Your task to perform on an android device: open app "Paramount+ | Peak Streaming" (install if not already installed), go to login, and select forgot password Image 0: 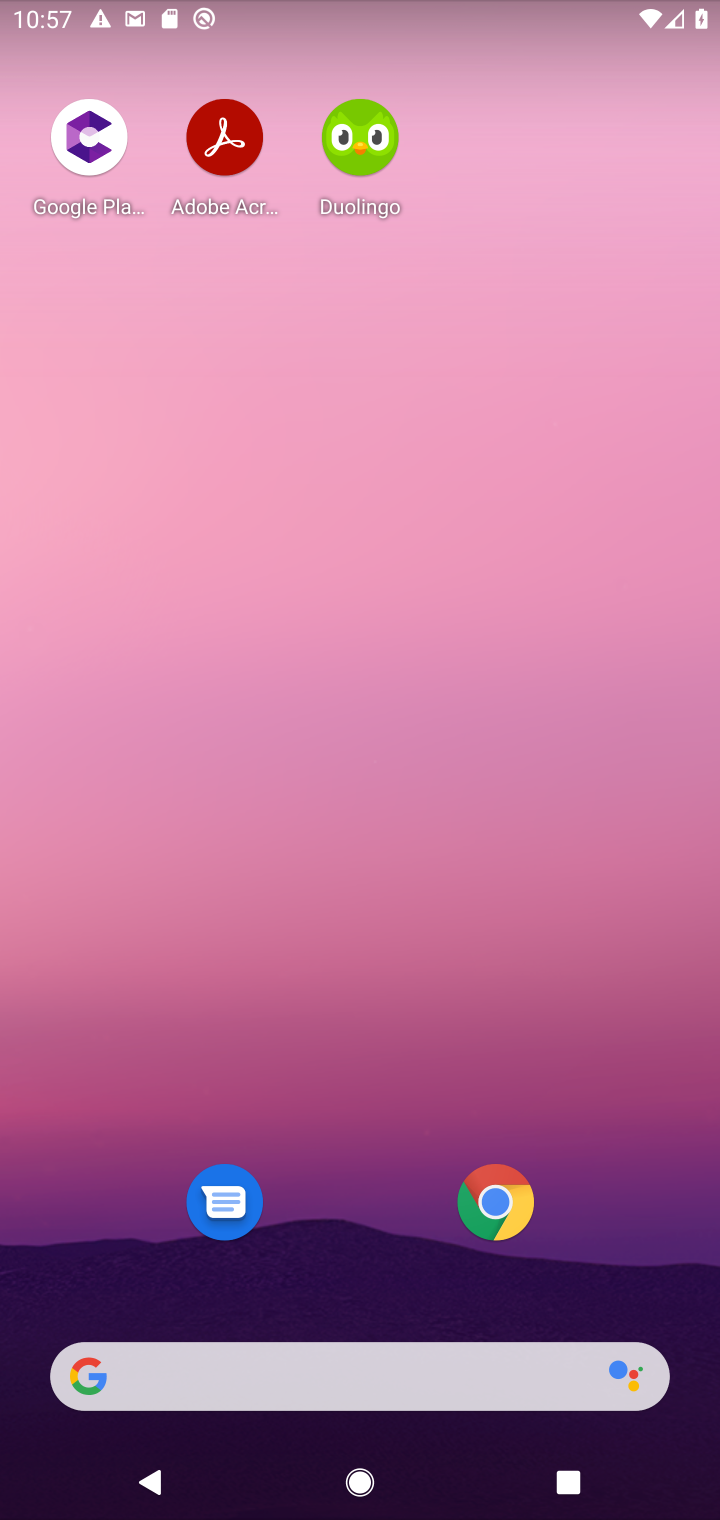
Step 0: drag from (390, 1184) to (377, 111)
Your task to perform on an android device: open app "Paramount+ | Peak Streaming" (install if not already installed), go to login, and select forgot password Image 1: 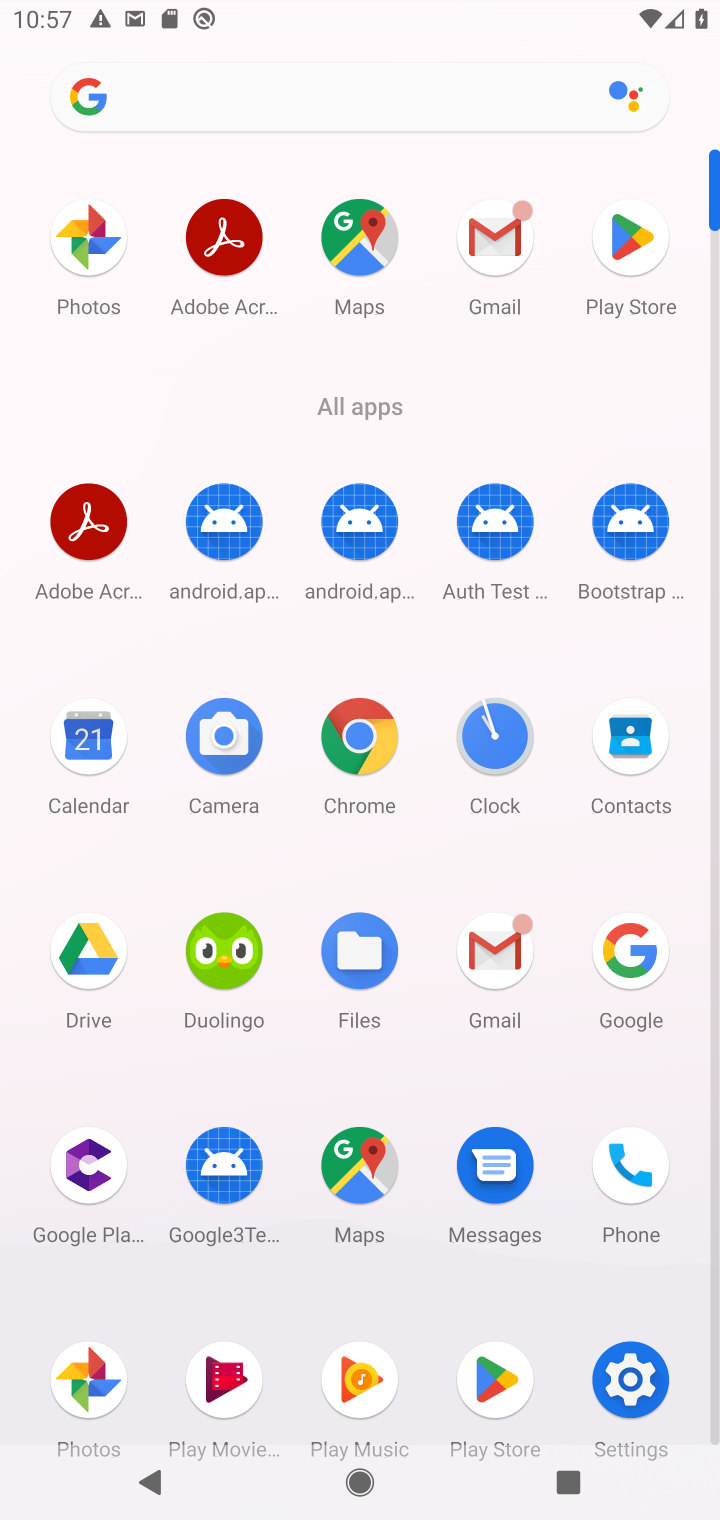
Step 1: click (490, 1375)
Your task to perform on an android device: open app "Paramount+ | Peak Streaming" (install if not already installed), go to login, and select forgot password Image 2: 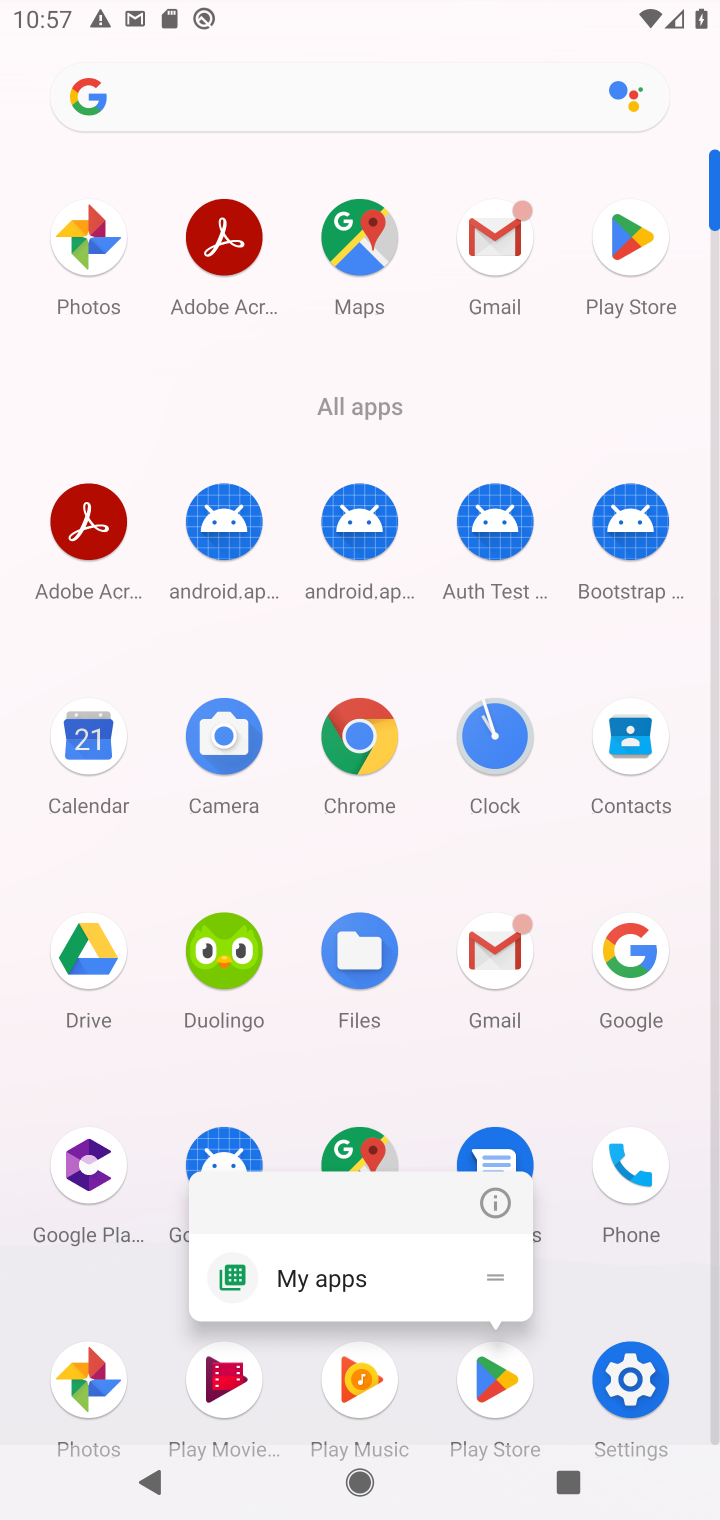
Step 2: click (491, 1377)
Your task to perform on an android device: open app "Paramount+ | Peak Streaming" (install if not already installed), go to login, and select forgot password Image 3: 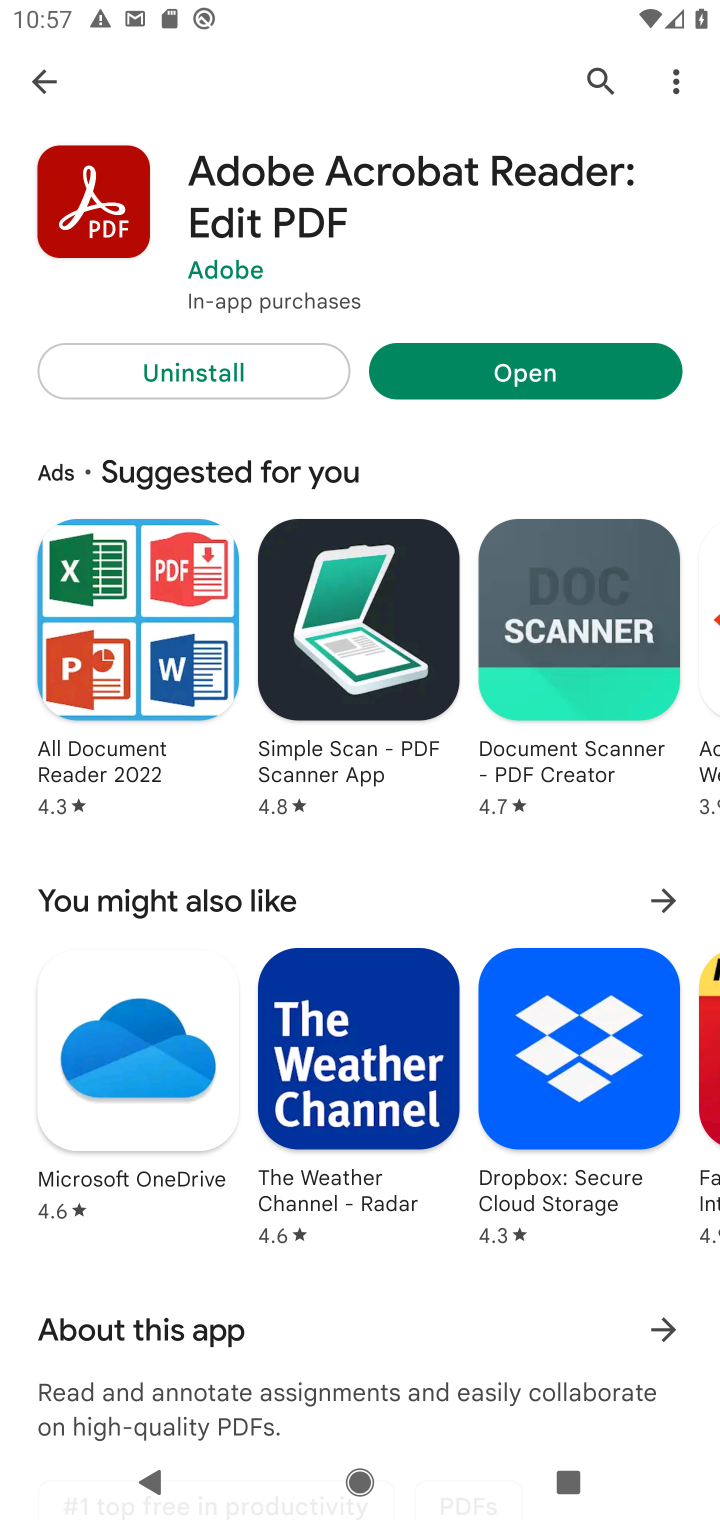
Step 3: click (609, 64)
Your task to perform on an android device: open app "Paramount+ | Peak Streaming" (install if not already installed), go to login, and select forgot password Image 4: 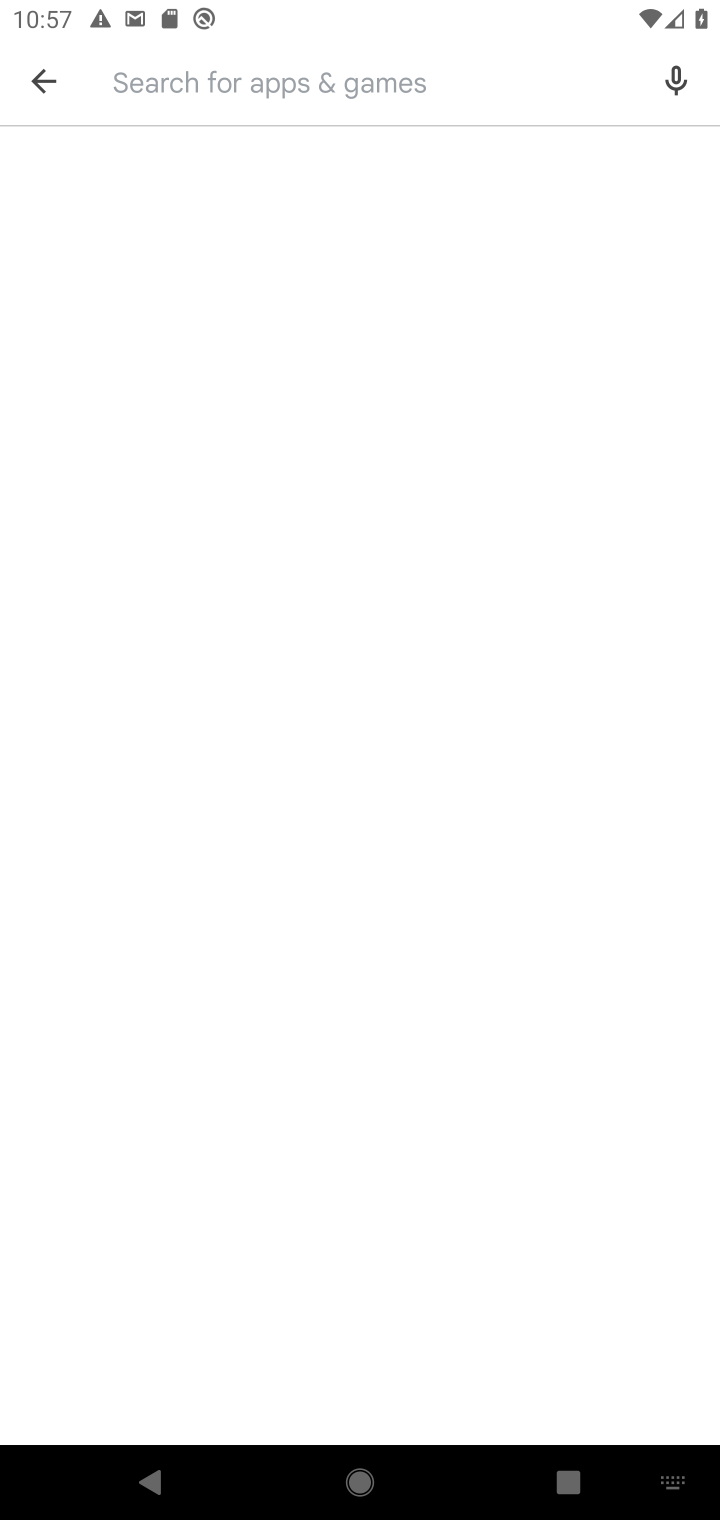
Step 4: type "Paramount+ | Peak Streaming"
Your task to perform on an android device: open app "Paramount+ | Peak Streaming" (install if not already installed), go to login, and select forgot password Image 5: 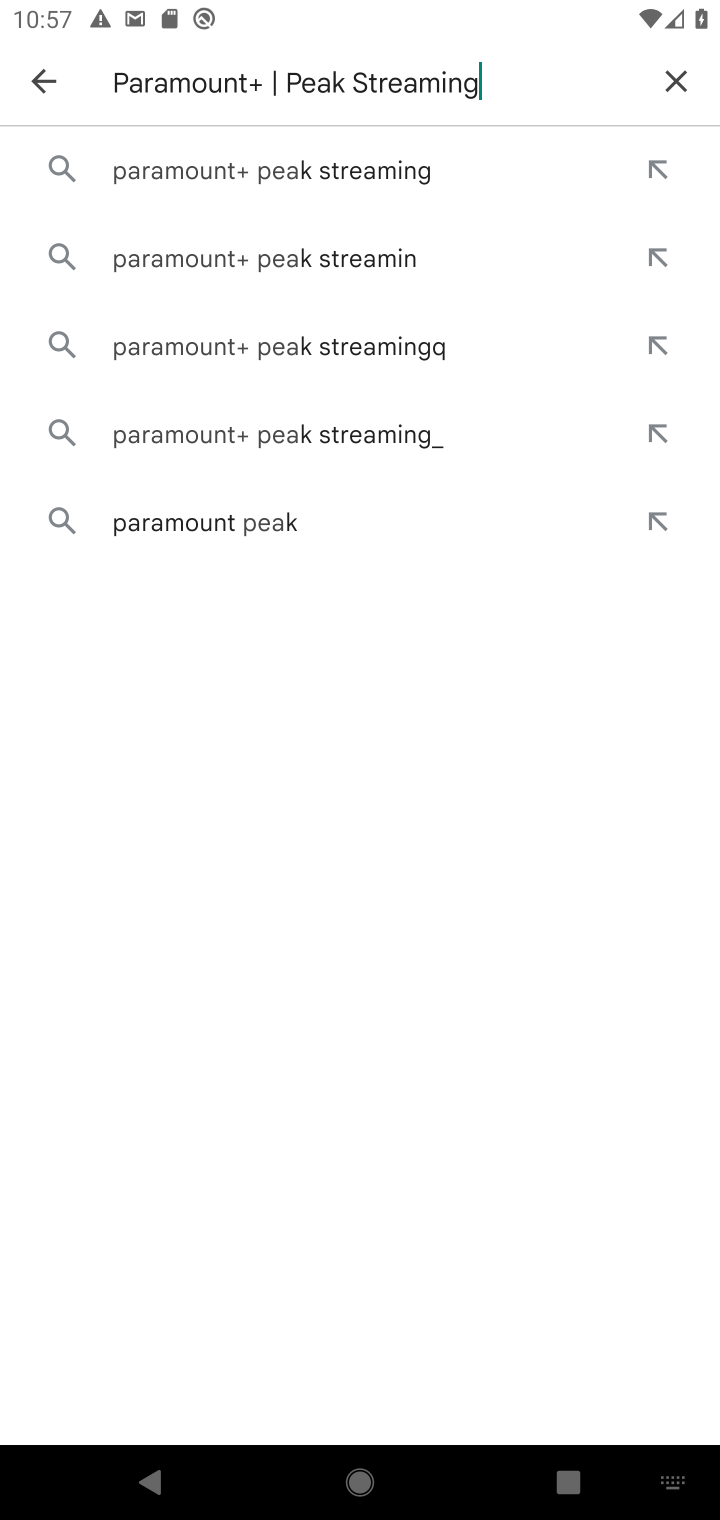
Step 5: type ""
Your task to perform on an android device: open app "Paramount+ | Peak Streaming" (install if not already installed), go to login, and select forgot password Image 6: 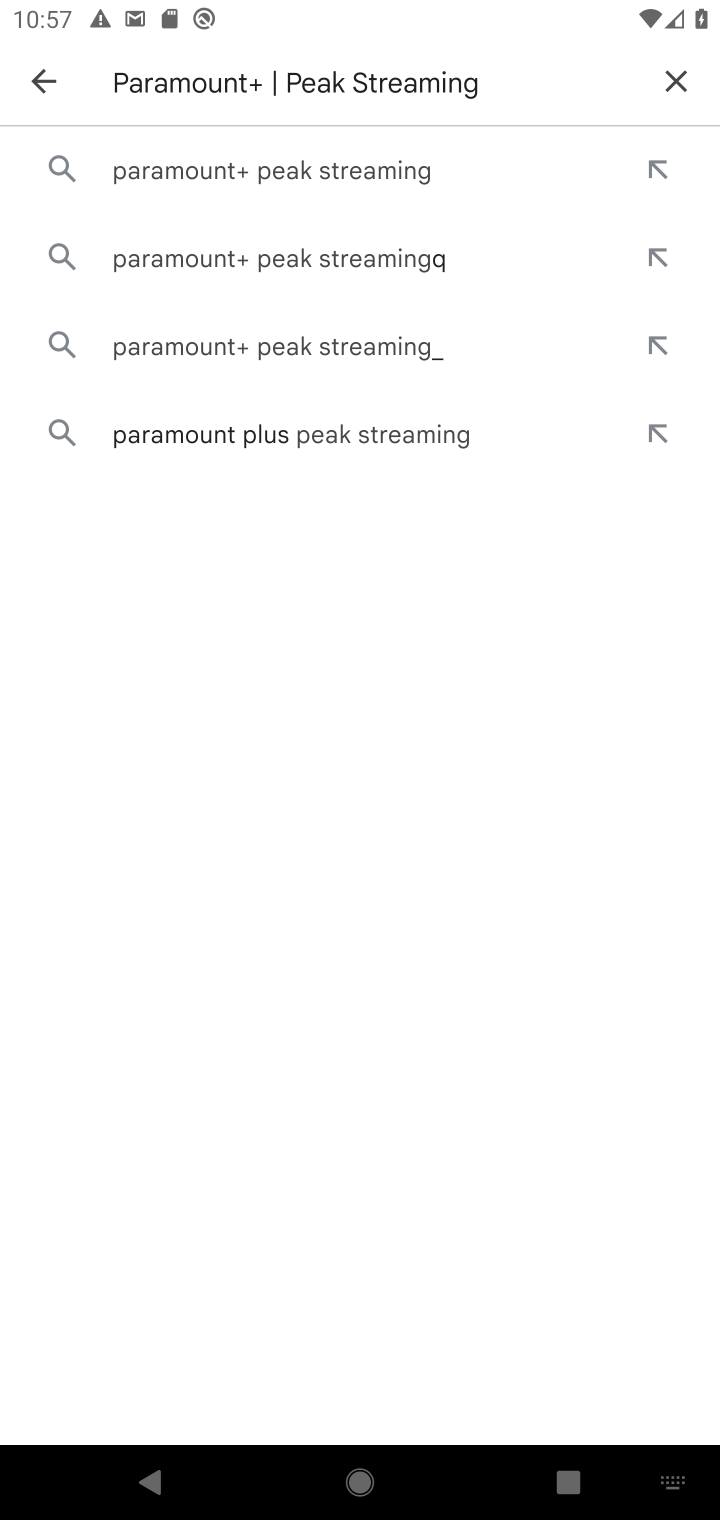
Step 6: click (383, 175)
Your task to perform on an android device: open app "Paramount+ | Peak Streaming" (install if not already installed), go to login, and select forgot password Image 7: 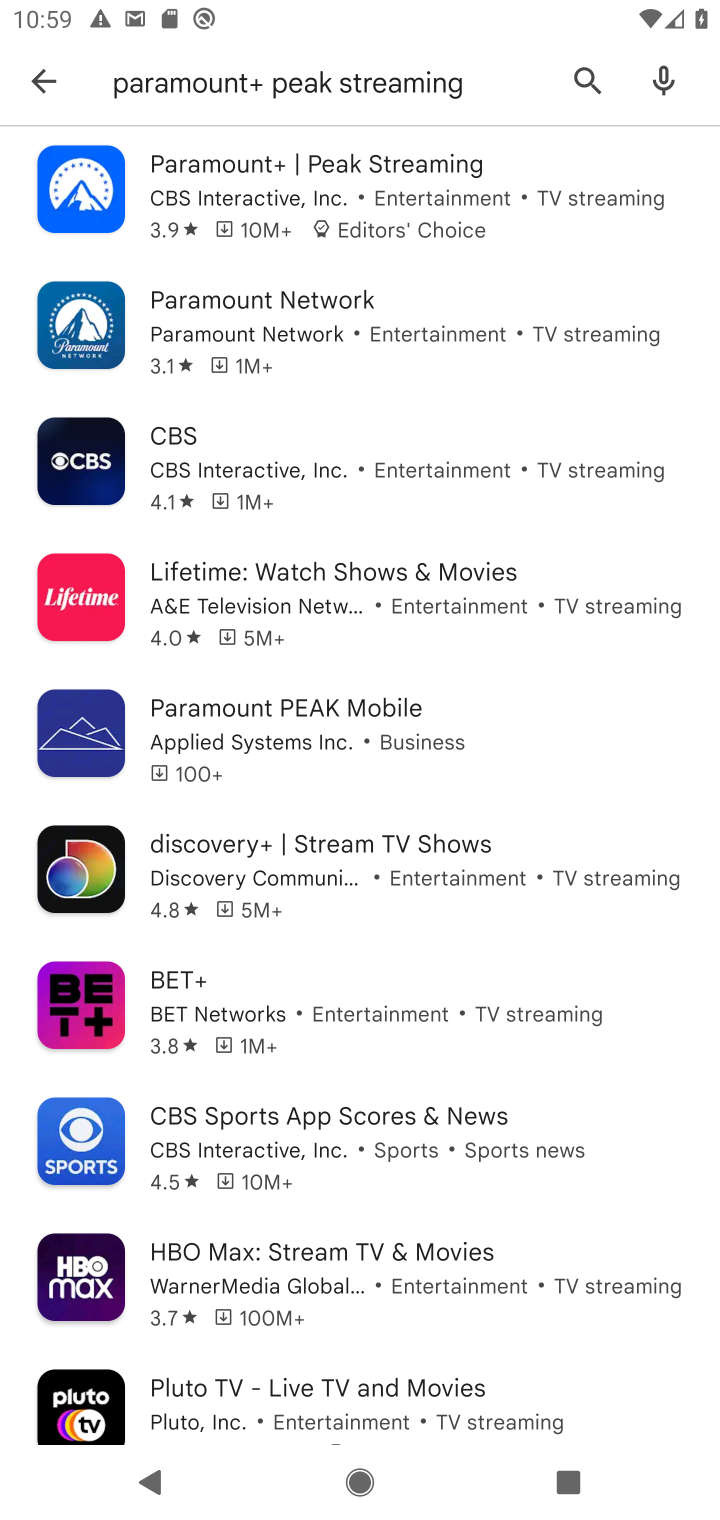
Step 7: click (356, 164)
Your task to perform on an android device: open app "Paramount+ | Peak Streaming" (install if not already installed), go to login, and select forgot password Image 8: 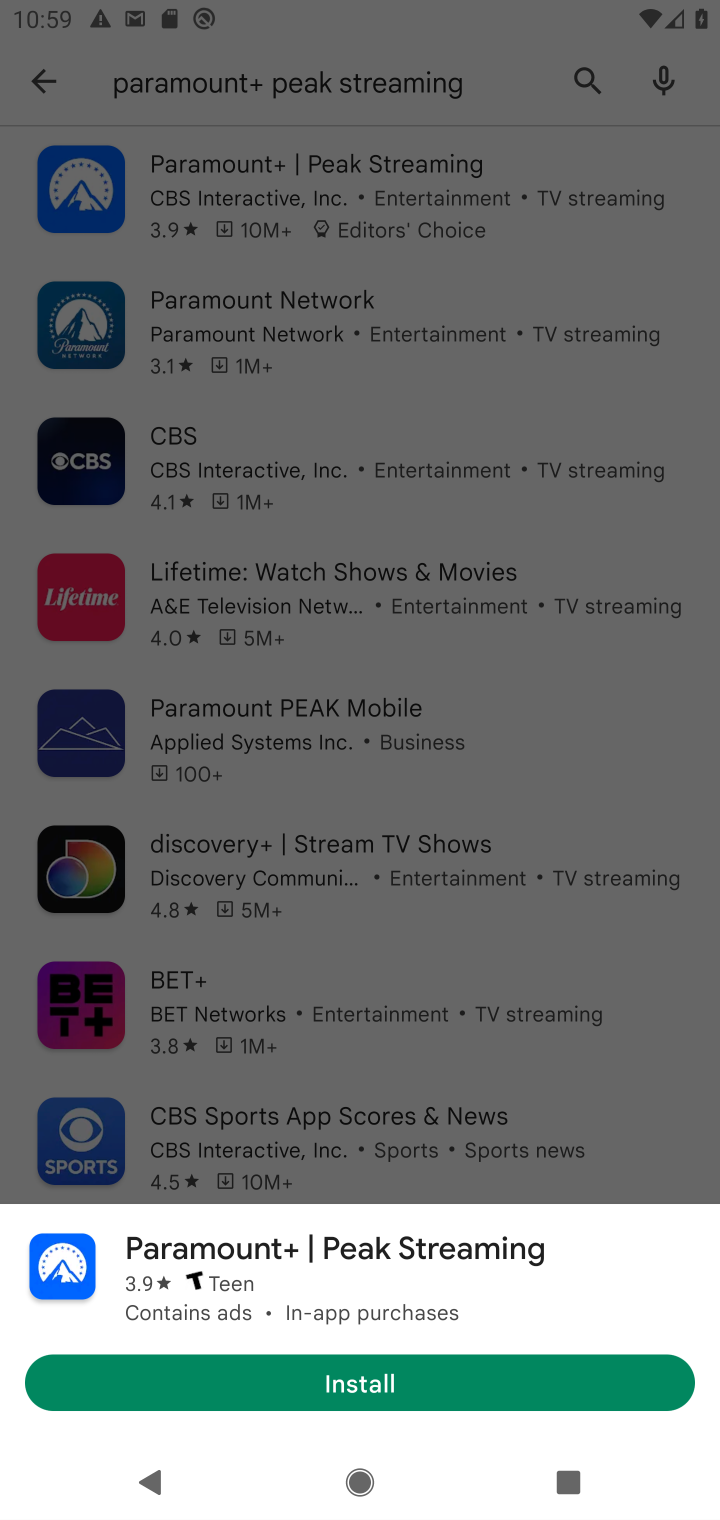
Step 8: click (358, 1383)
Your task to perform on an android device: open app "Paramount+ | Peak Streaming" (install if not already installed), go to login, and select forgot password Image 9: 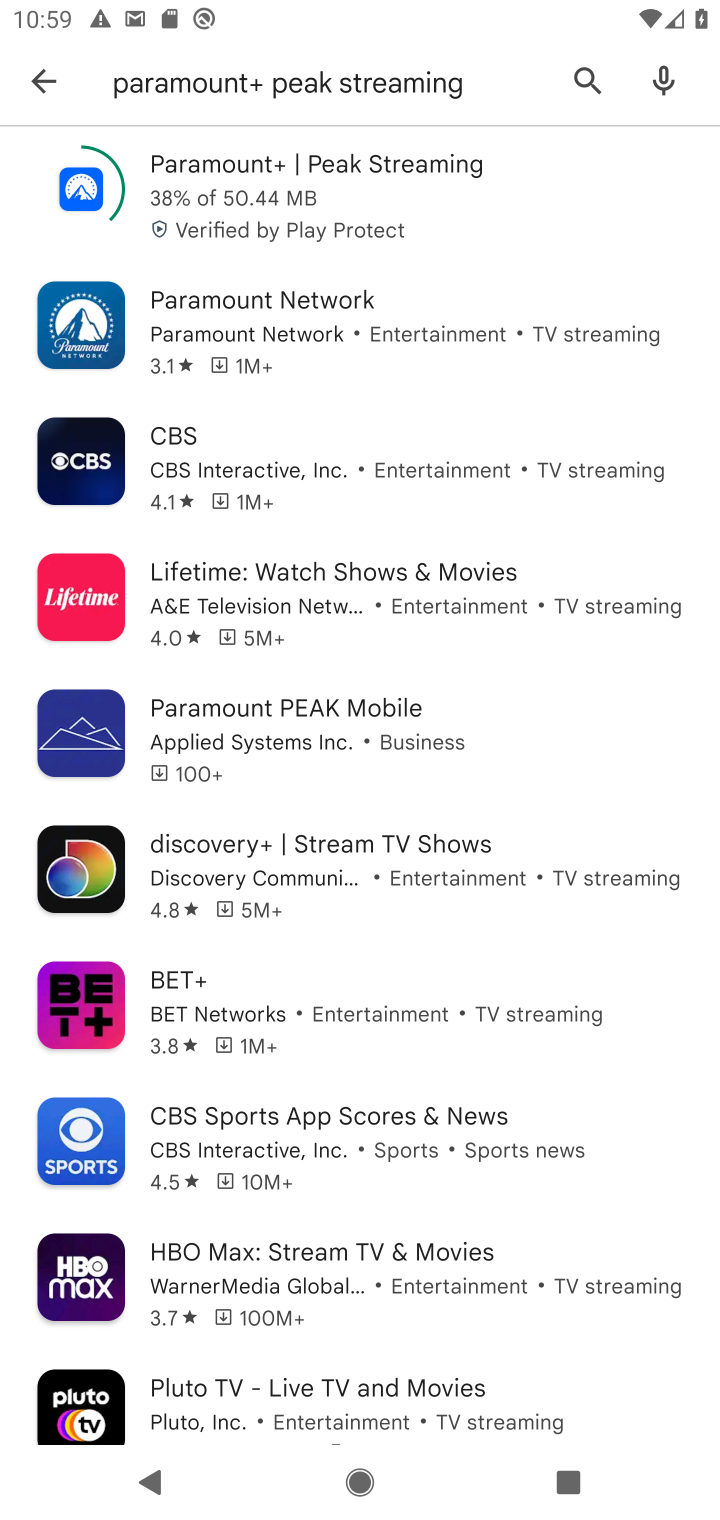
Step 9: click (207, 160)
Your task to perform on an android device: open app "Paramount+ | Peak Streaming" (install if not already installed), go to login, and select forgot password Image 10: 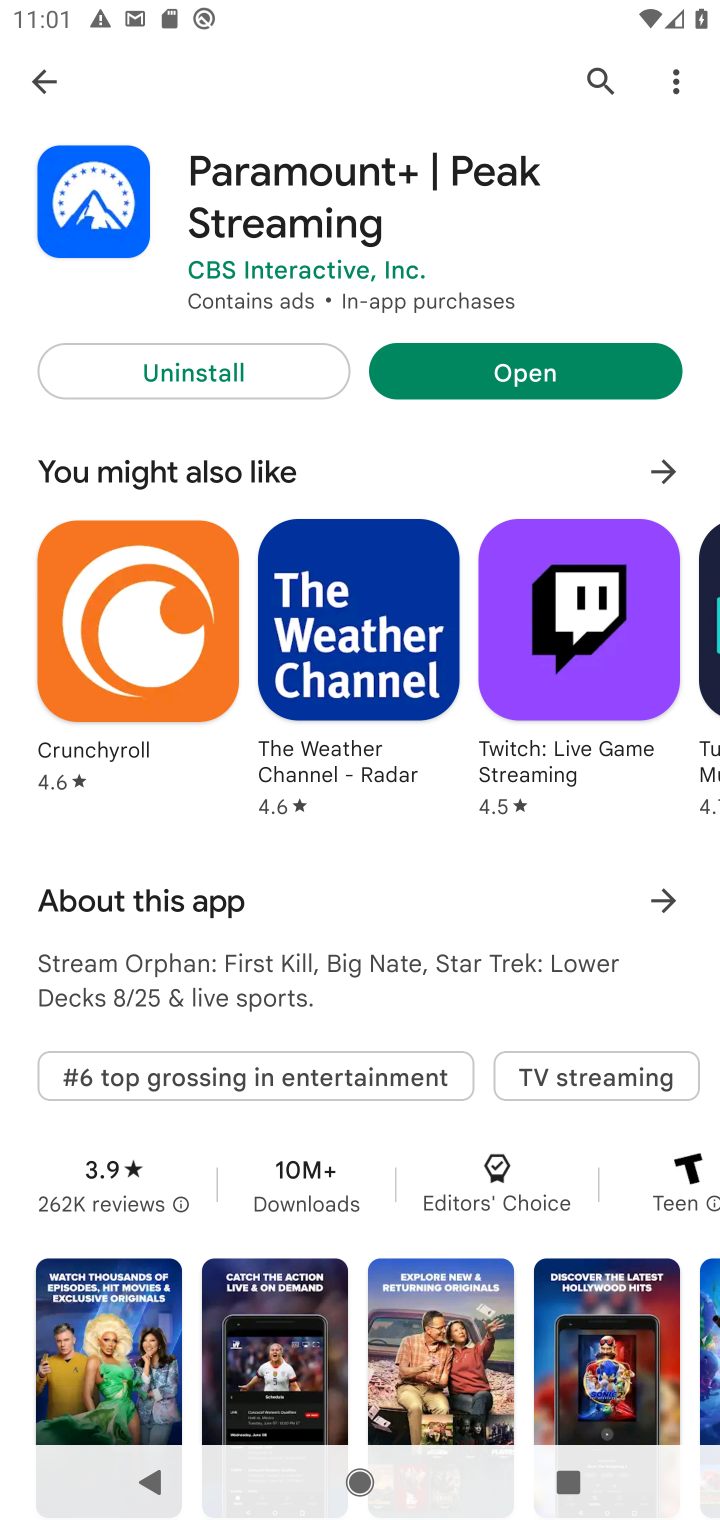
Step 10: click (573, 374)
Your task to perform on an android device: open app "Paramount+ | Peak Streaming" (install if not already installed), go to login, and select forgot password Image 11: 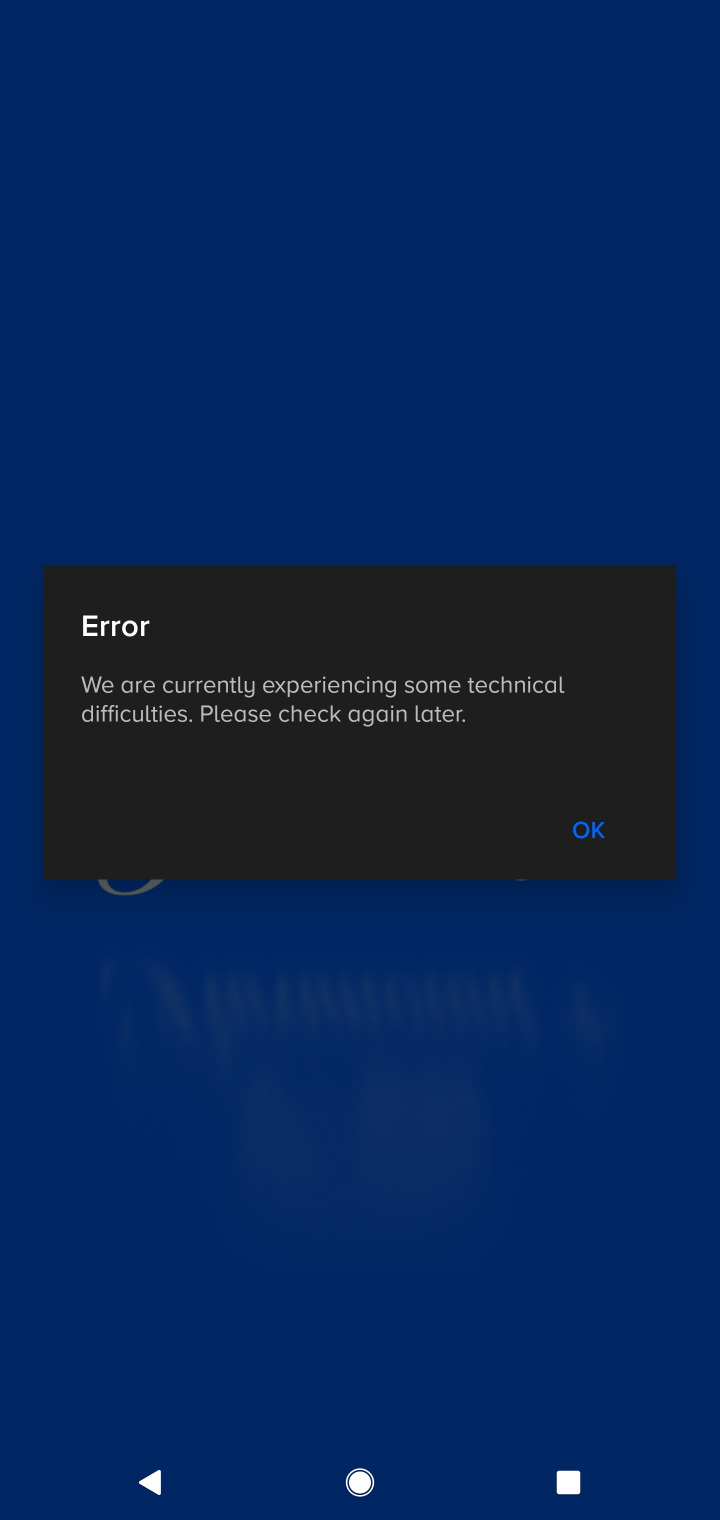
Step 11: click (590, 828)
Your task to perform on an android device: open app "Paramount+ | Peak Streaming" (install if not already installed), go to login, and select forgot password Image 12: 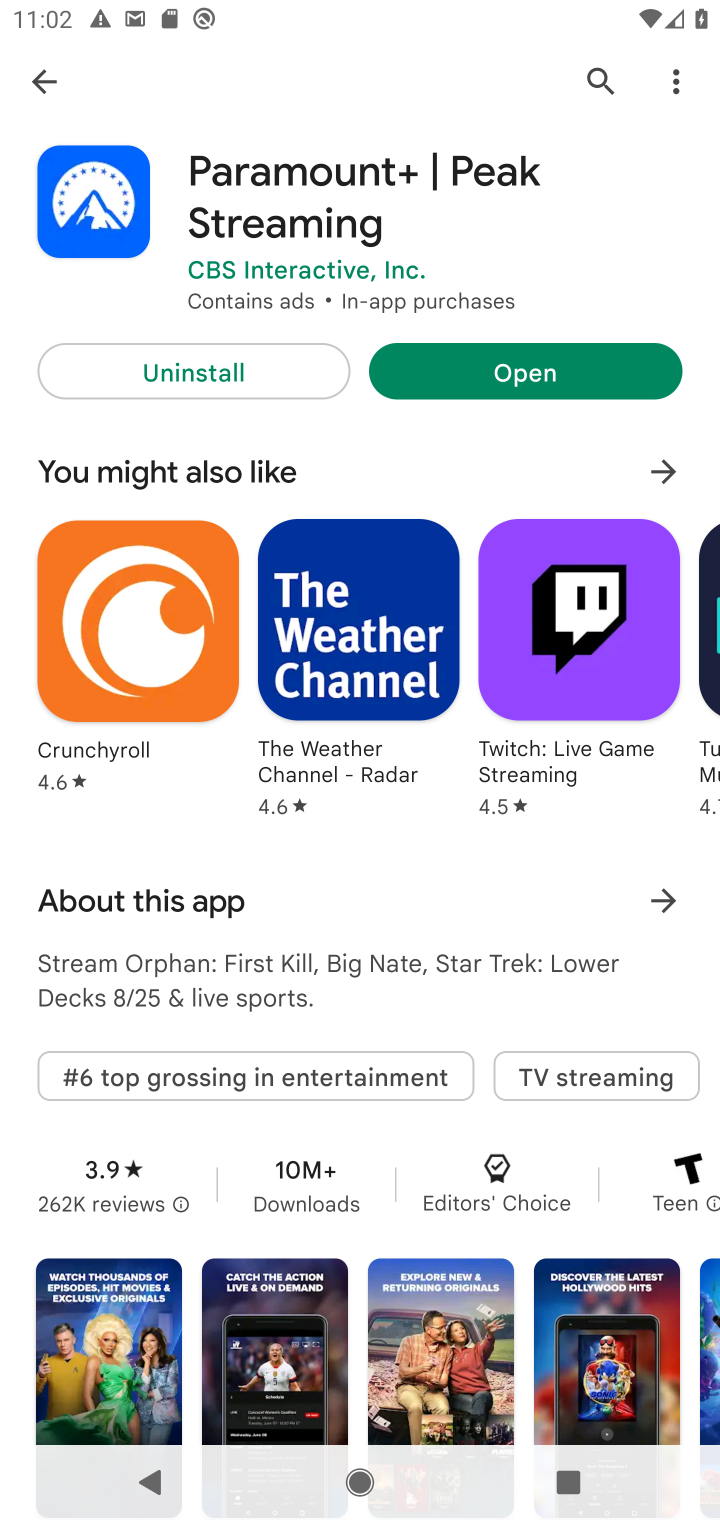
Step 12: click (573, 365)
Your task to perform on an android device: open app "Paramount+ | Peak Streaming" (install if not already installed), go to login, and select forgot password Image 13: 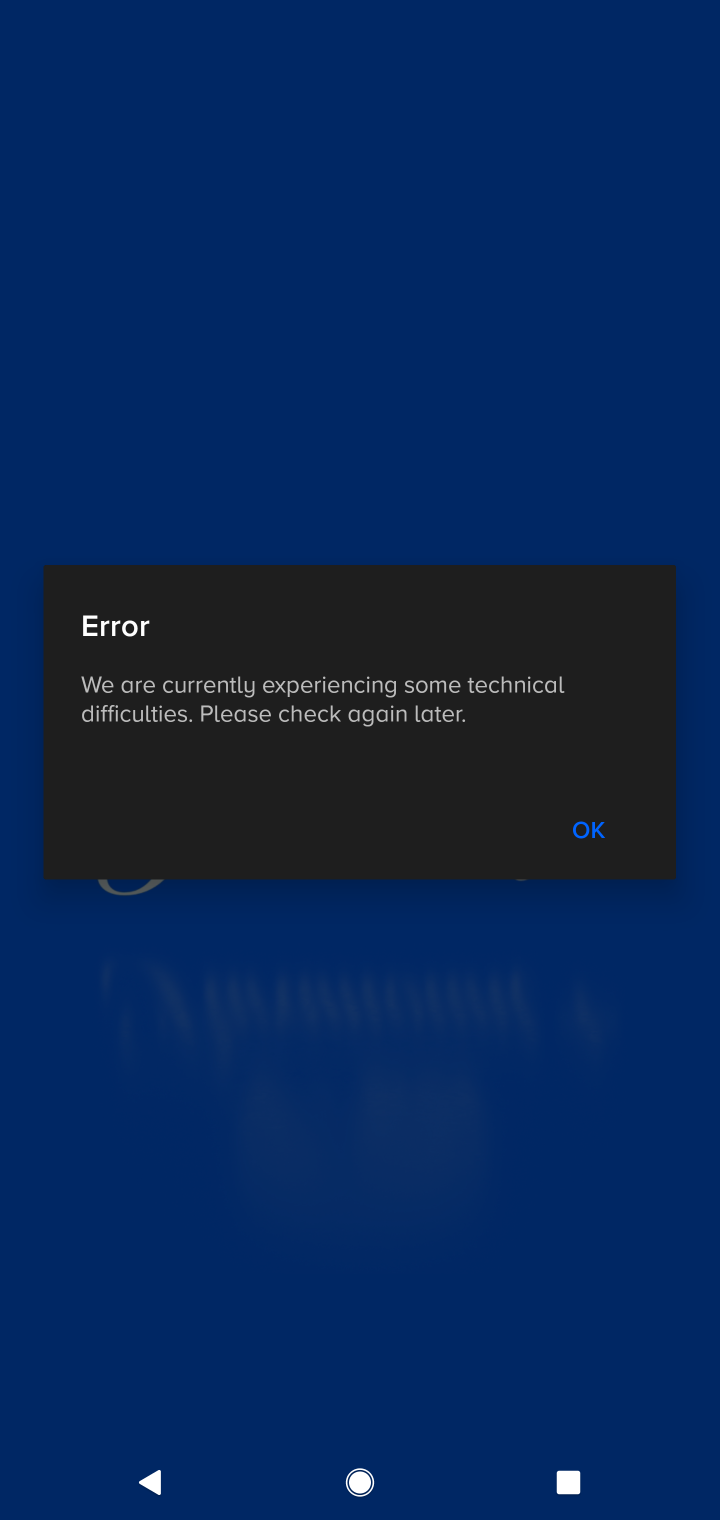
Step 13: task complete